Your task to perform on an android device: Open Google Chrome and click the shortcut for Amazon.com Image 0: 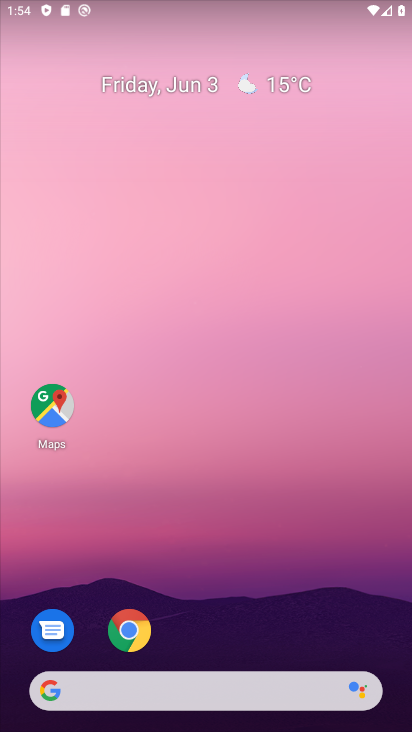
Step 0: press home button
Your task to perform on an android device: Open Google Chrome and click the shortcut for Amazon.com Image 1: 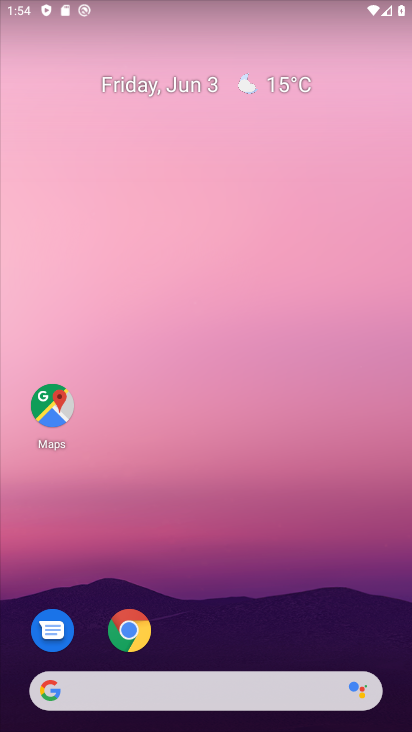
Step 1: click (139, 623)
Your task to perform on an android device: Open Google Chrome and click the shortcut for Amazon.com Image 2: 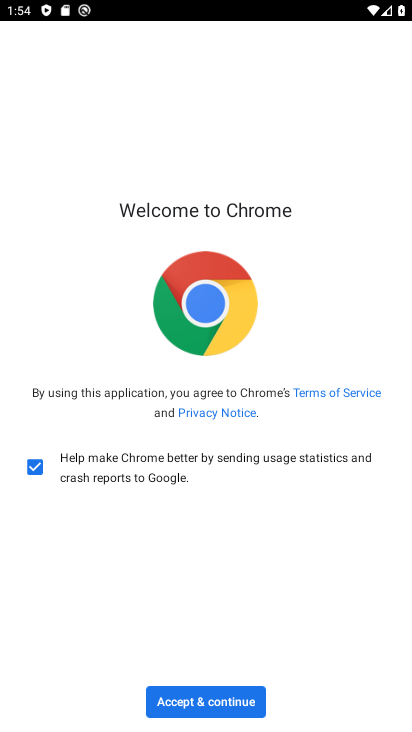
Step 2: click (206, 707)
Your task to perform on an android device: Open Google Chrome and click the shortcut for Amazon.com Image 3: 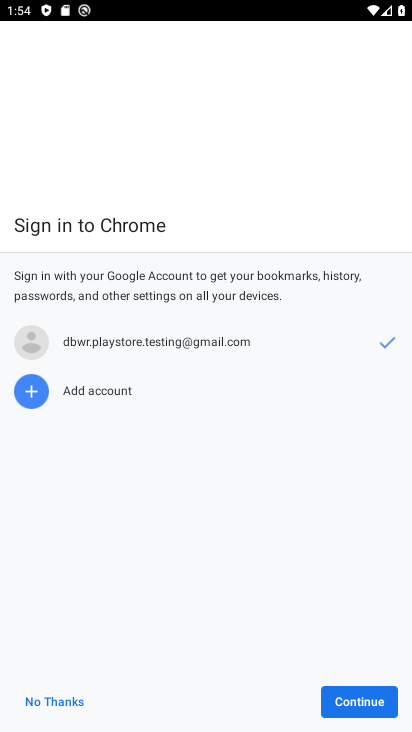
Step 3: click (372, 698)
Your task to perform on an android device: Open Google Chrome and click the shortcut for Amazon.com Image 4: 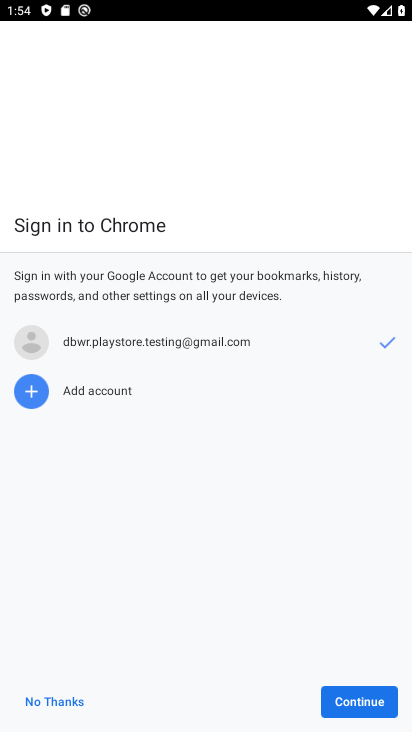
Step 4: click (372, 698)
Your task to perform on an android device: Open Google Chrome and click the shortcut for Amazon.com Image 5: 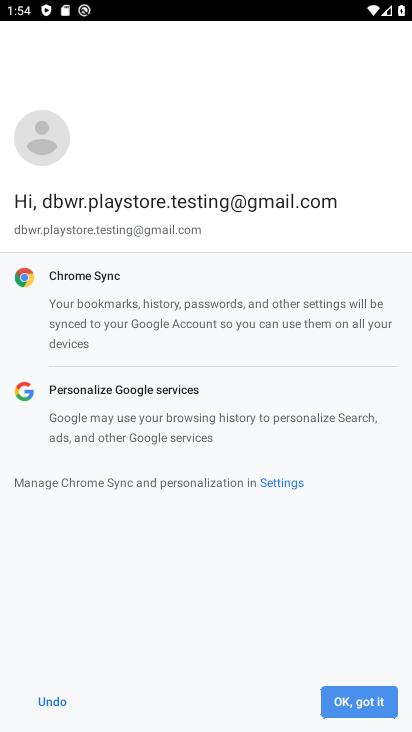
Step 5: click (372, 698)
Your task to perform on an android device: Open Google Chrome and click the shortcut for Amazon.com Image 6: 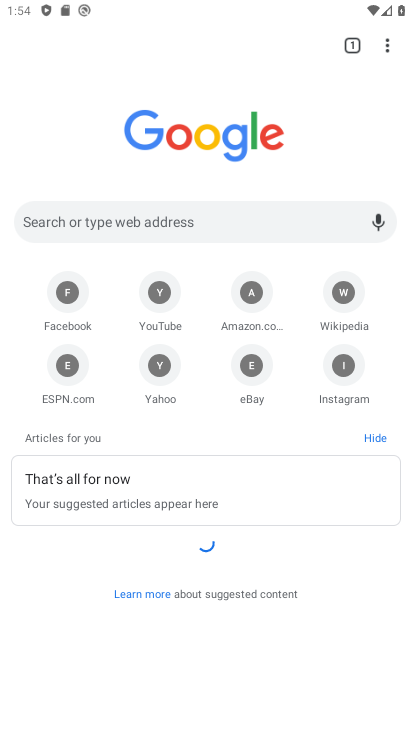
Step 6: drag from (389, 36) to (264, 383)
Your task to perform on an android device: Open Google Chrome and click the shortcut for Amazon.com Image 7: 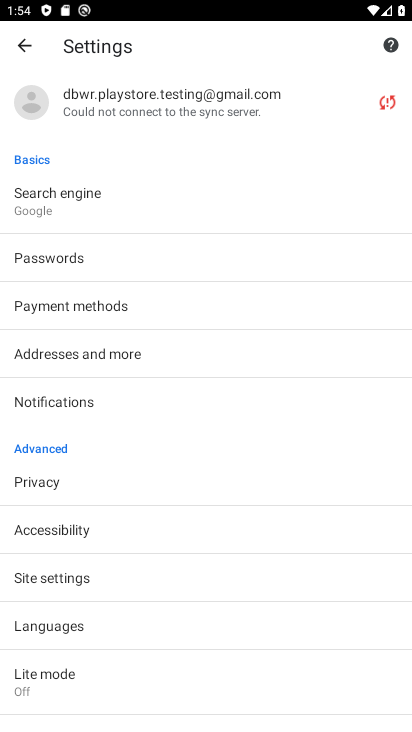
Step 7: click (20, 43)
Your task to perform on an android device: Open Google Chrome and click the shortcut for Amazon.com Image 8: 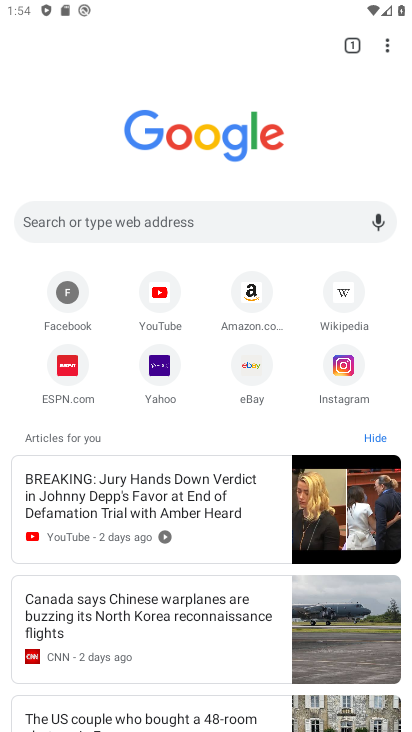
Step 8: drag from (385, 46) to (231, 89)
Your task to perform on an android device: Open Google Chrome and click the shortcut for Amazon.com Image 9: 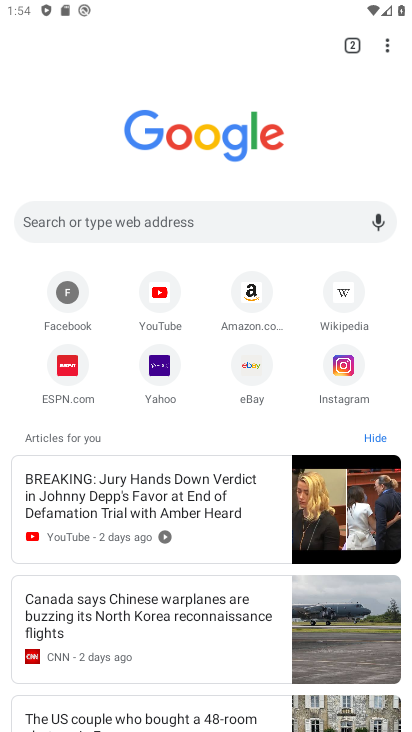
Step 9: click (241, 297)
Your task to perform on an android device: Open Google Chrome and click the shortcut for Amazon.com Image 10: 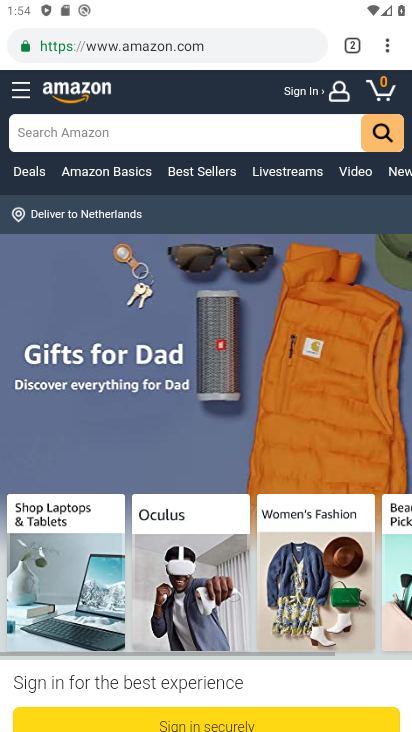
Step 10: task complete